Your task to perform on an android device: When is my next appointment? Image 0: 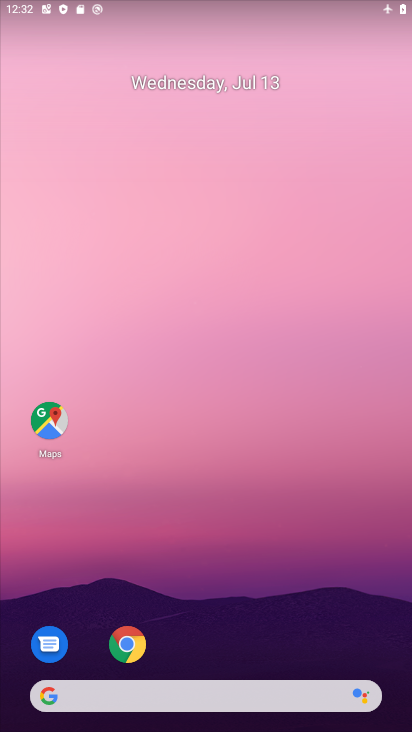
Step 0: drag from (355, 593) to (323, 54)
Your task to perform on an android device: When is my next appointment? Image 1: 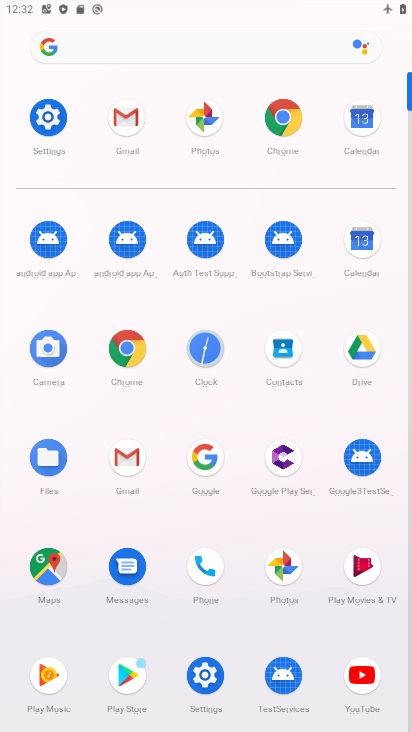
Step 1: click (357, 245)
Your task to perform on an android device: When is my next appointment? Image 2: 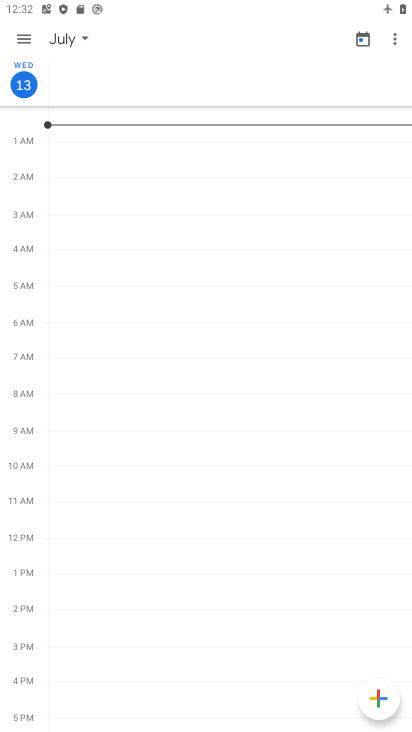
Step 2: click (19, 38)
Your task to perform on an android device: When is my next appointment? Image 3: 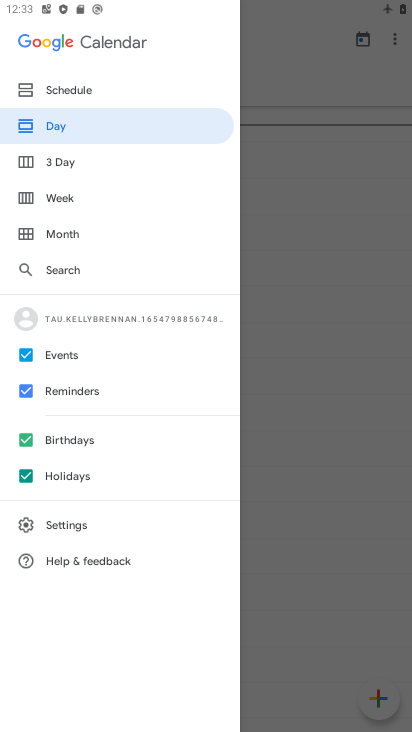
Step 3: click (59, 193)
Your task to perform on an android device: When is my next appointment? Image 4: 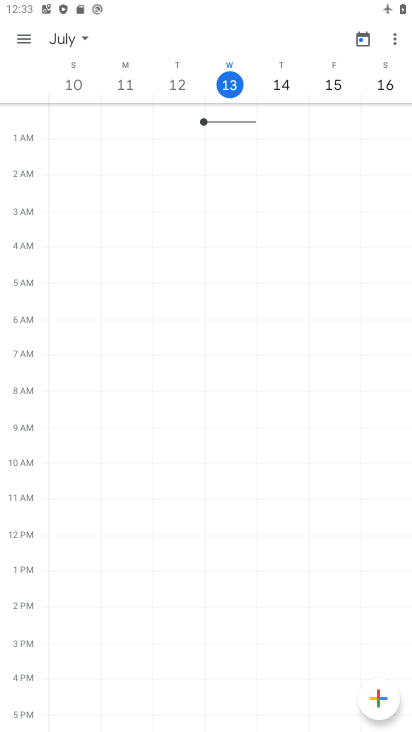
Step 4: task complete